Your task to perform on an android device: stop showing notifications on the lock screen Image 0: 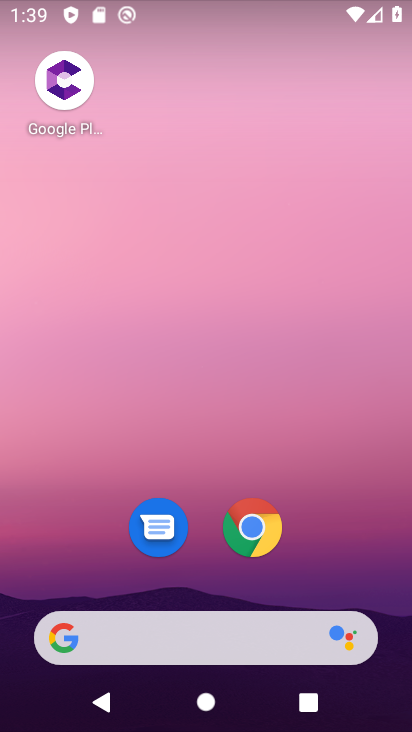
Step 0: drag from (73, 615) to (205, 52)
Your task to perform on an android device: stop showing notifications on the lock screen Image 1: 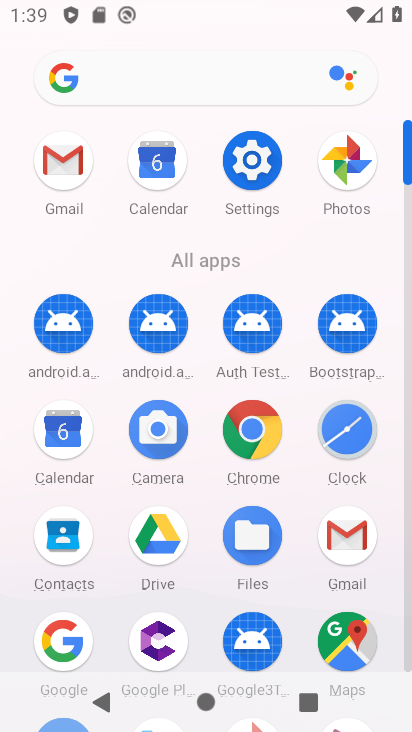
Step 1: click (262, 164)
Your task to perform on an android device: stop showing notifications on the lock screen Image 2: 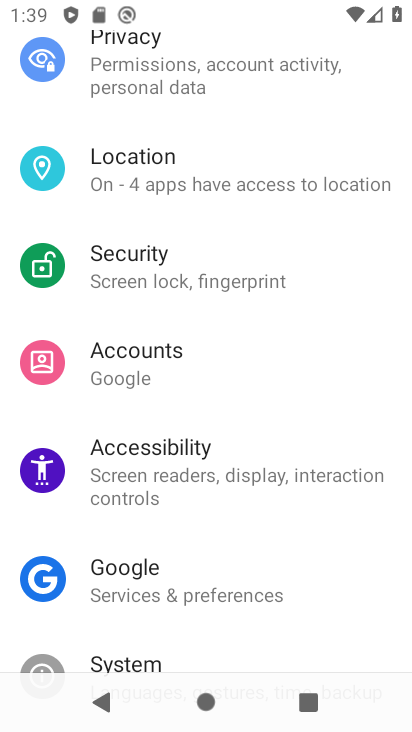
Step 2: drag from (234, 153) to (190, 552)
Your task to perform on an android device: stop showing notifications on the lock screen Image 3: 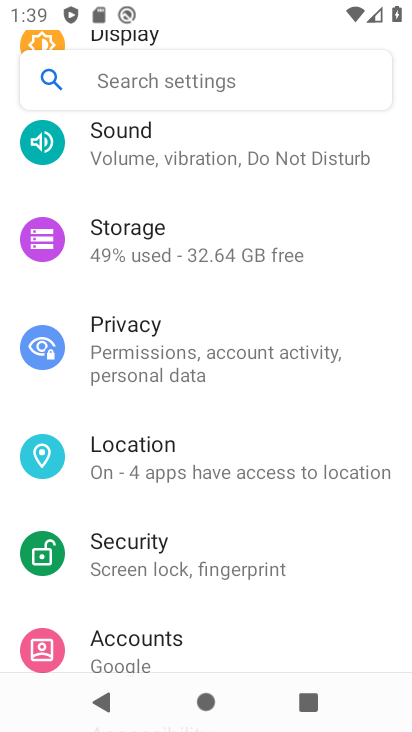
Step 3: drag from (189, 207) to (189, 456)
Your task to perform on an android device: stop showing notifications on the lock screen Image 4: 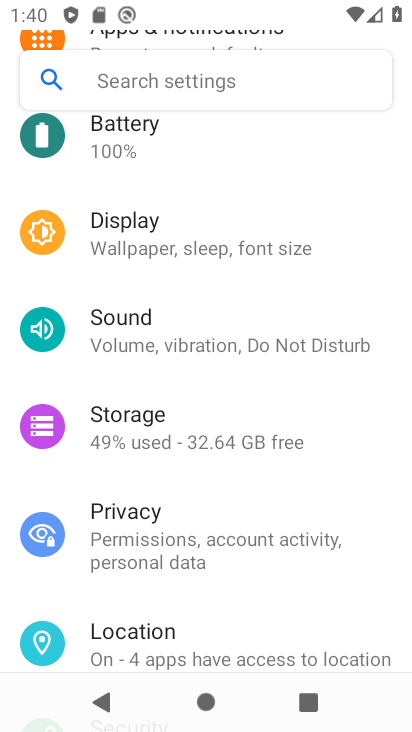
Step 4: drag from (218, 196) to (202, 499)
Your task to perform on an android device: stop showing notifications on the lock screen Image 5: 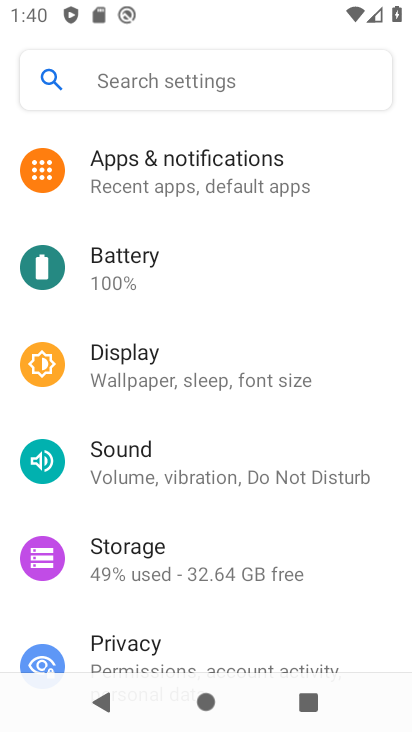
Step 5: click (206, 184)
Your task to perform on an android device: stop showing notifications on the lock screen Image 6: 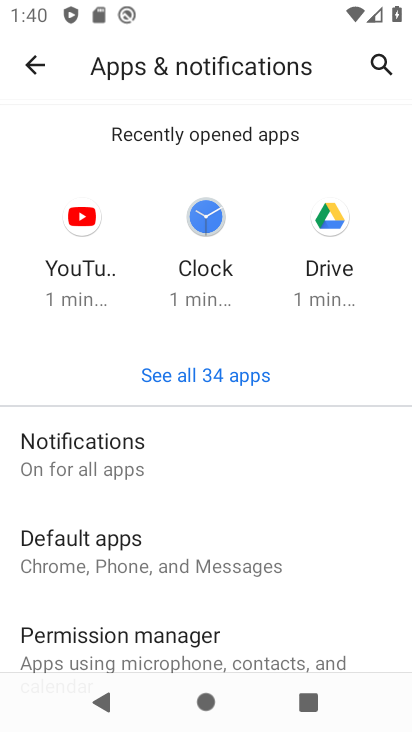
Step 6: click (122, 501)
Your task to perform on an android device: stop showing notifications on the lock screen Image 7: 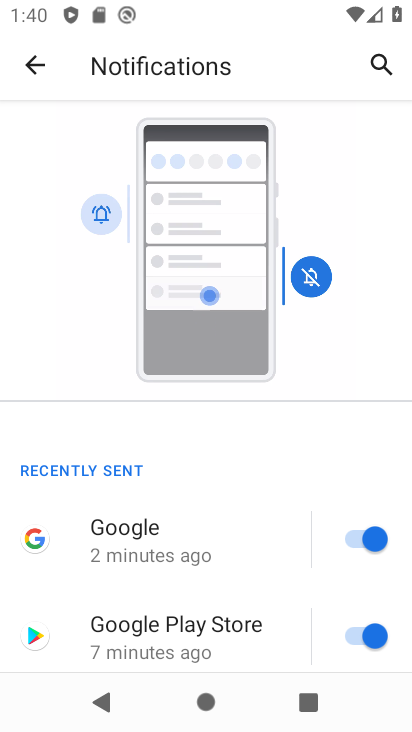
Step 7: drag from (125, 636) to (224, 231)
Your task to perform on an android device: stop showing notifications on the lock screen Image 8: 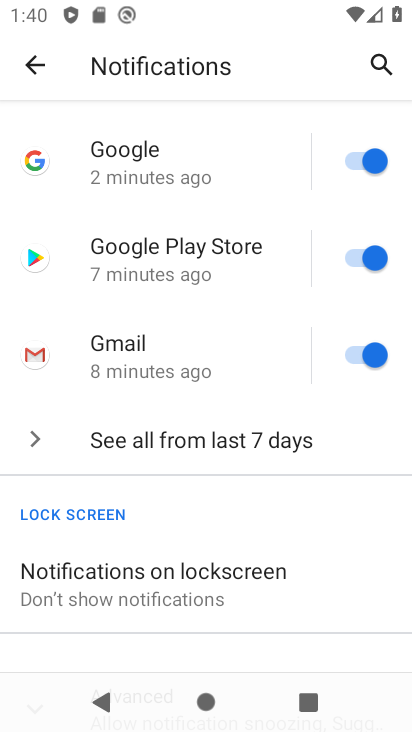
Step 8: click (123, 564)
Your task to perform on an android device: stop showing notifications on the lock screen Image 9: 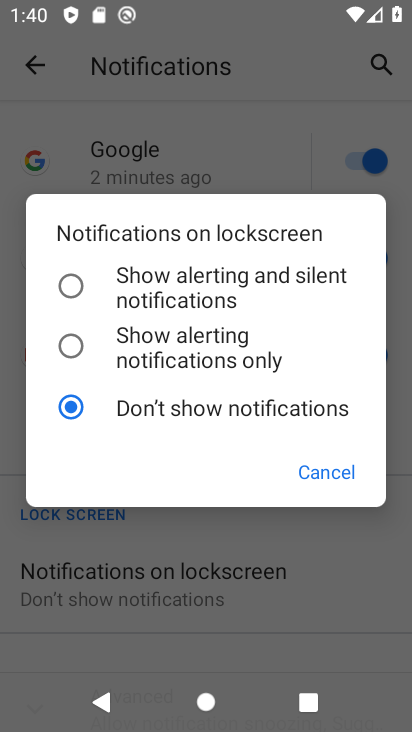
Step 9: task complete